Your task to perform on an android device: toggle data saver in the chrome app Image 0: 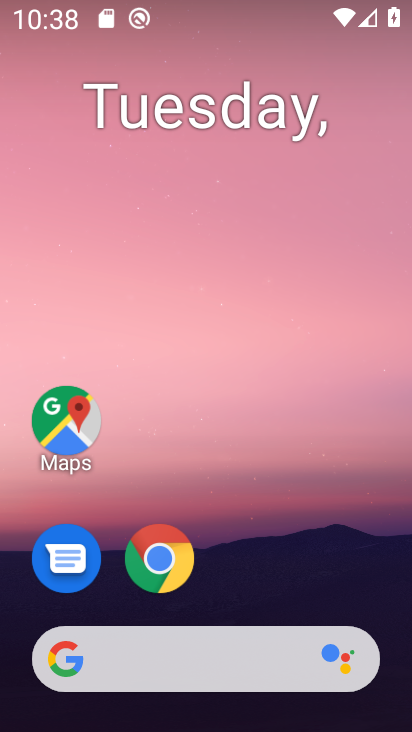
Step 0: press home button
Your task to perform on an android device: toggle data saver in the chrome app Image 1: 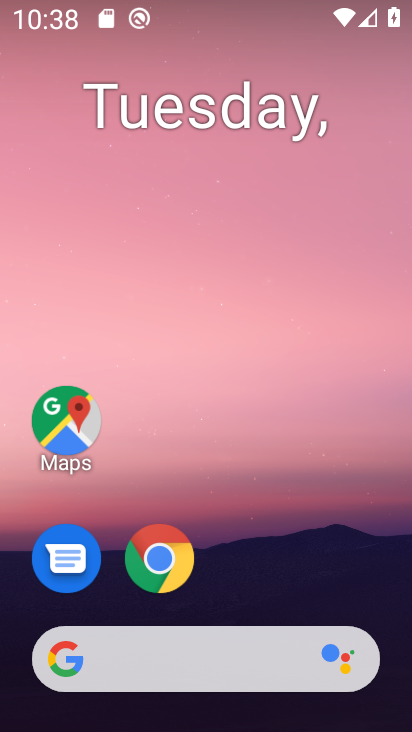
Step 1: drag from (357, 537) to (362, 90)
Your task to perform on an android device: toggle data saver in the chrome app Image 2: 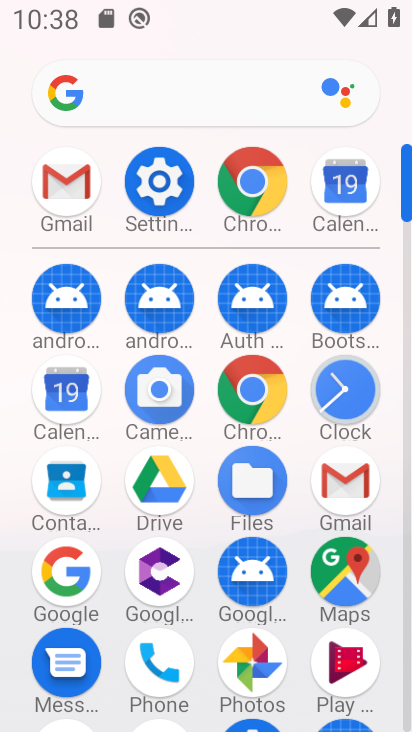
Step 2: click (266, 183)
Your task to perform on an android device: toggle data saver in the chrome app Image 3: 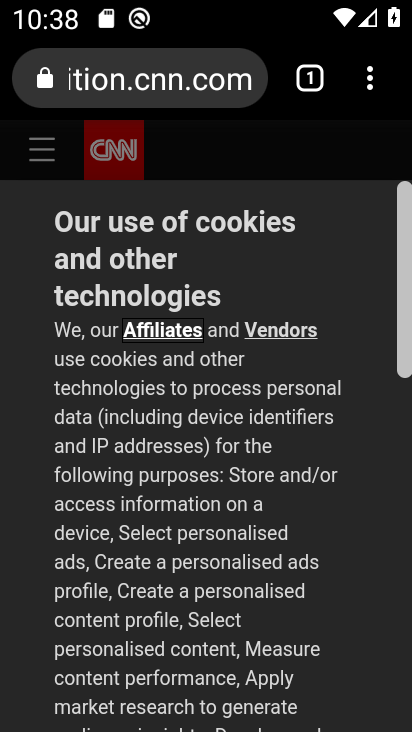
Step 3: click (370, 88)
Your task to perform on an android device: toggle data saver in the chrome app Image 4: 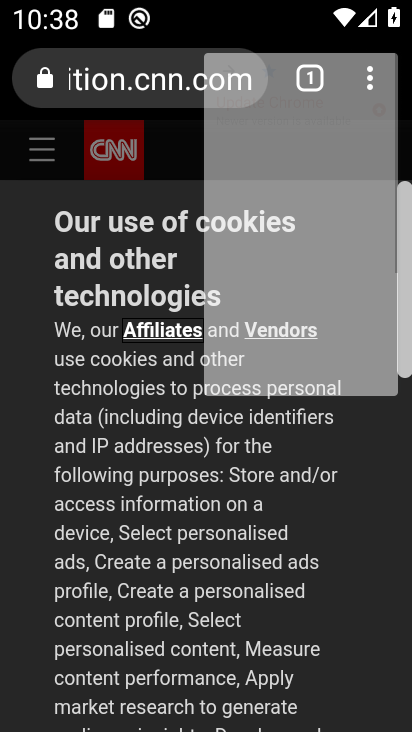
Step 4: click (370, 88)
Your task to perform on an android device: toggle data saver in the chrome app Image 5: 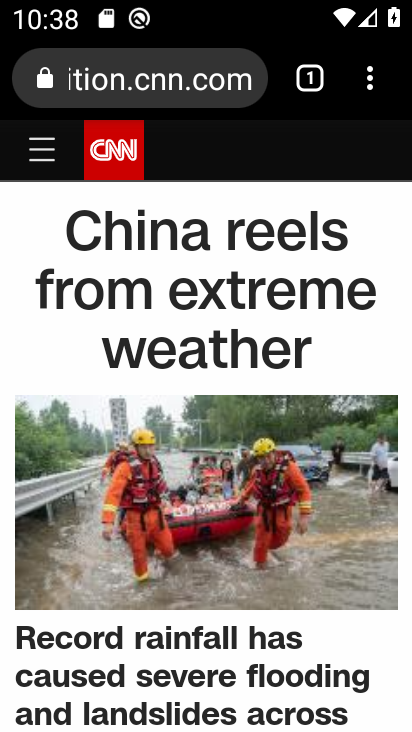
Step 5: click (365, 84)
Your task to perform on an android device: toggle data saver in the chrome app Image 6: 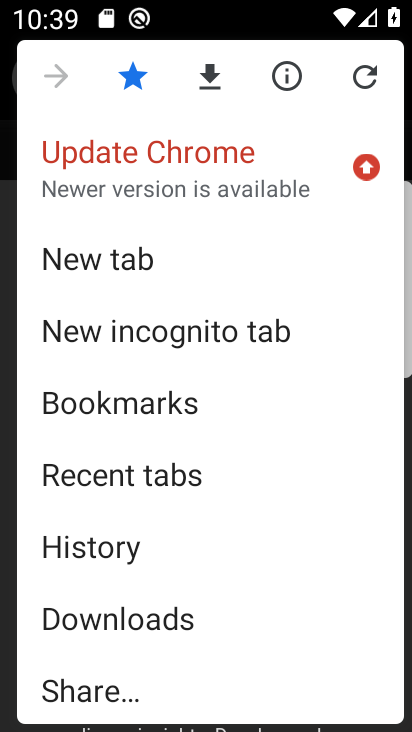
Step 6: drag from (284, 599) to (343, 282)
Your task to perform on an android device: toggle data saver in the chrome app Image 7: 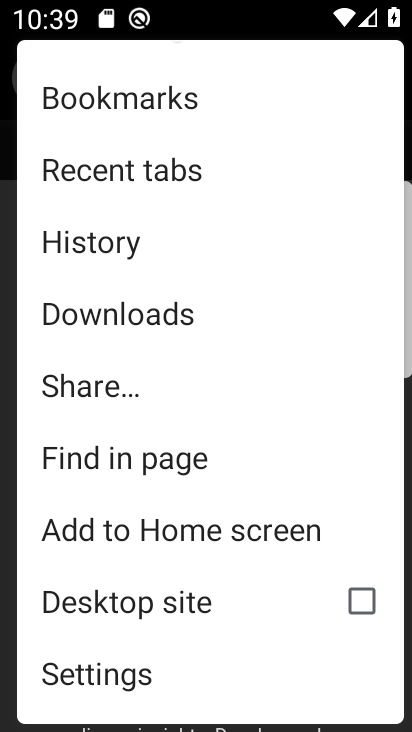
Step 7: drag from (295, 609) to (306, 448)
Your task to perform on an android device: toggle data saver in the chrome app Image 8: 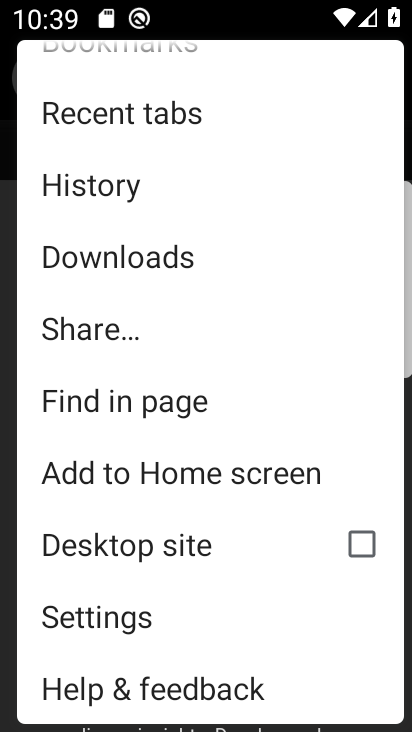
Step 8: click (246, 625)
Your task to perform on an android device: toggle data saver in the chrome app Image 9: 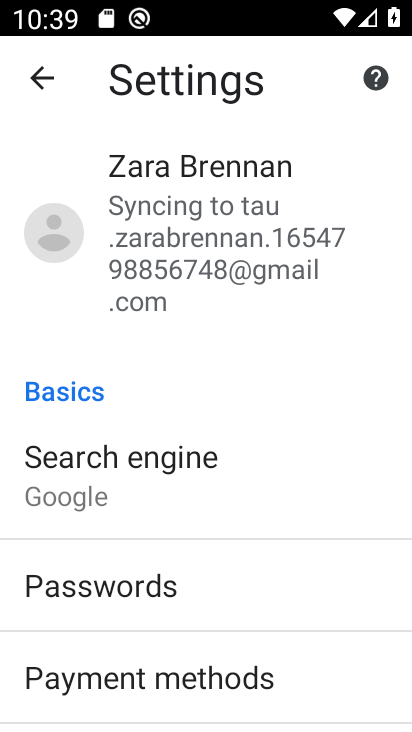
Step 9: drag from (314, 556) to (331, 431)
Your task to perform on an android device: toggle data saver in the chrome app Image 10: 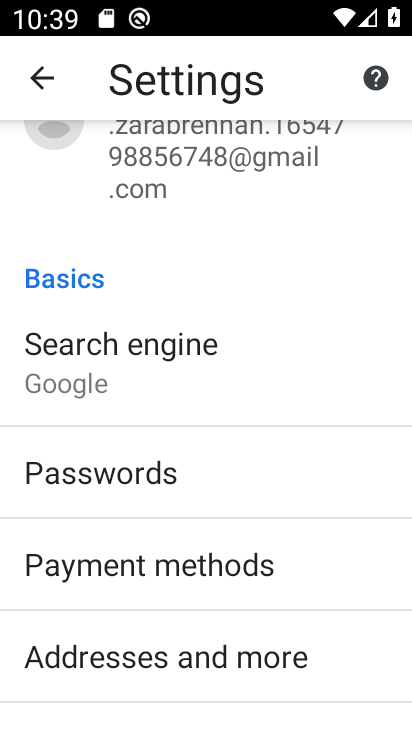
Step 10: drag from (354, 548) to (355, 400)
Your task to perform on an android device: toggle data saver in the chrome app Image 11: 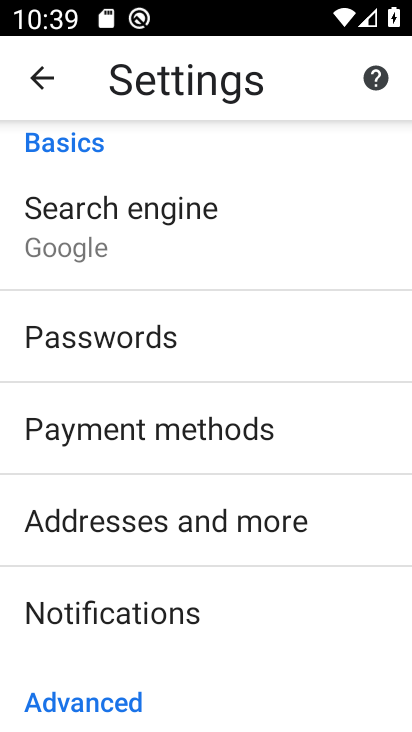
Step 11: drag from (356, 553) to (346, 416)
Your task to perform on an android device: toggle data saver in the chrome app Image 12: 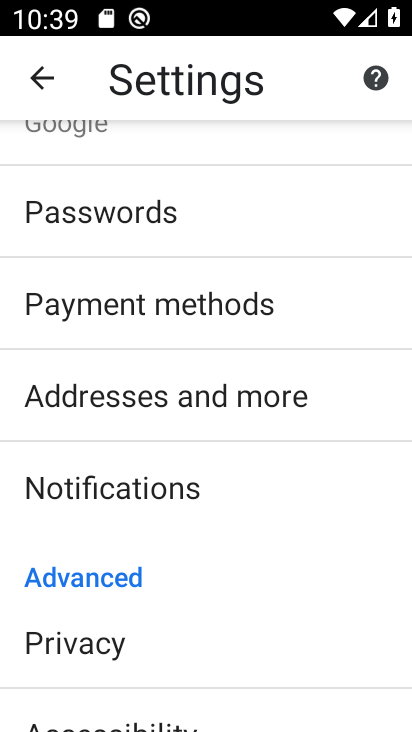
Step 12: drag from (337, 525) to (339, 414)
Your task to perform on an android device: toggle data saver in the chrome app Image 13: 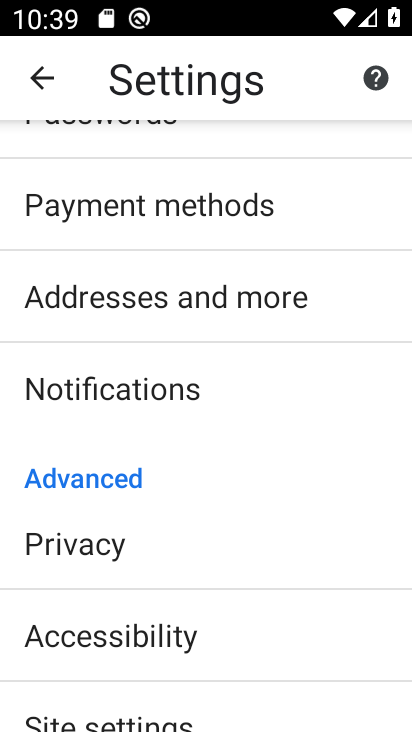
Step 13: drag from (338, 557) to (341, 392)
Your task to perform on an android device: toggle data saver in the chrome app Image 14: 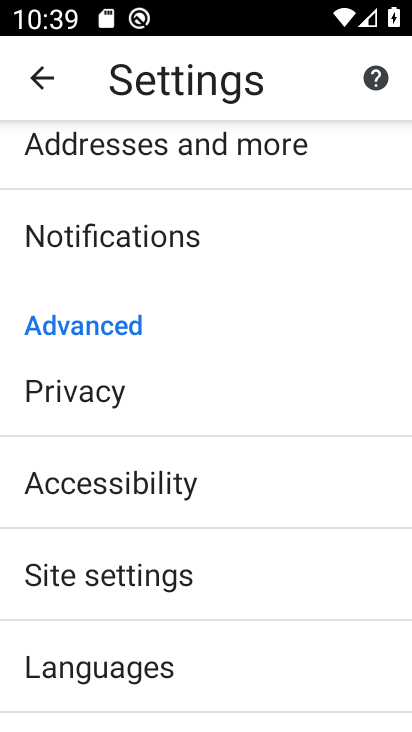
Step 14: drag from (315, 605) to (323, 480)
Your task to perform on an android device: toggle data saver in the chrome app Image 15: 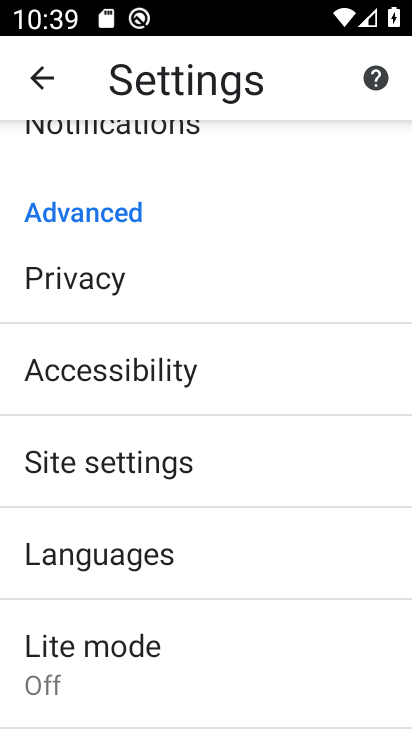
Step 15: click (310, 662)
Your task to perform on an android device: toggle data saver in the chrome app Image 16: 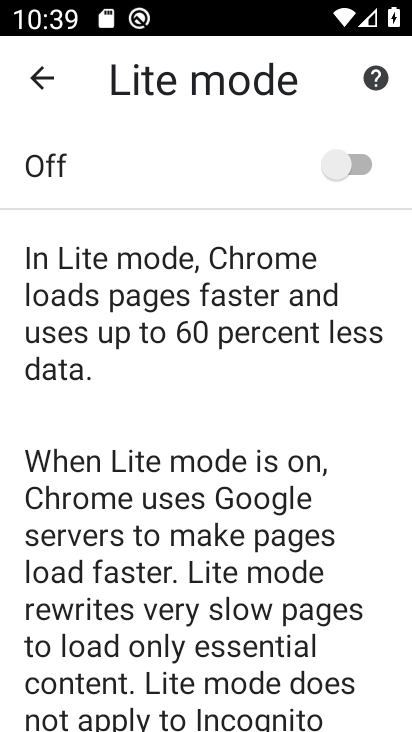
Step 16: click (334, 174)
Your task to perform on an android device: toggle data saver in the chrome app Image 17: 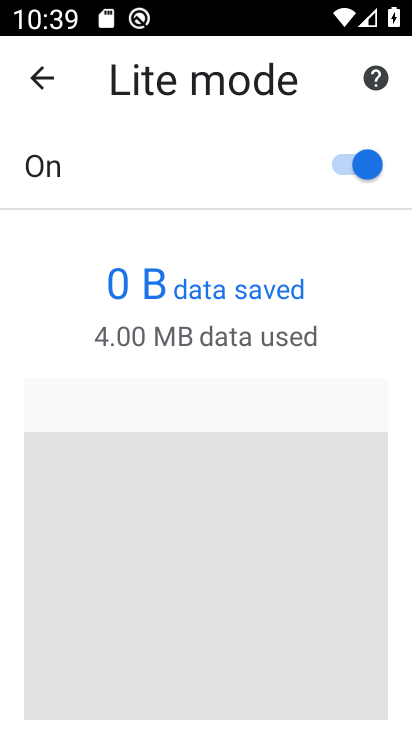
Step 17: task complete